Your task to perform on an android device: Check the weather Image 0: 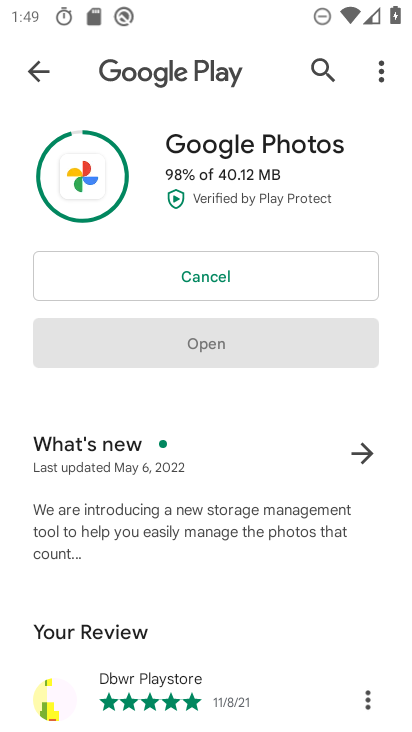
Step 0: drag from (213, 619) to (260, 239)
Your task to perform on an android device: Check the weather Image 1: 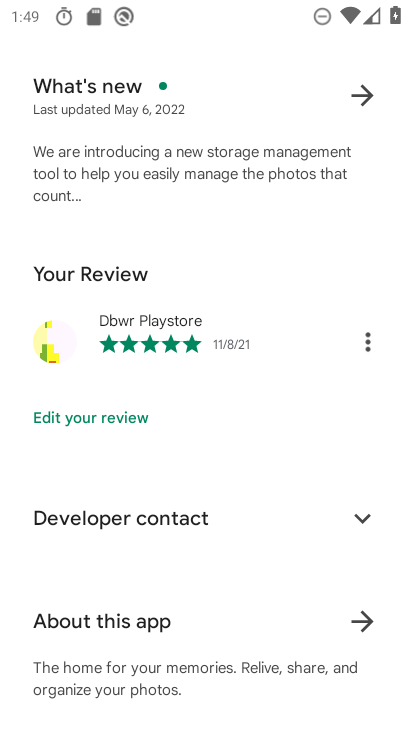
Step 1: drag from (201, 564) to (256, 316)
Your task to perform on an android device: Check the weather Image 2: 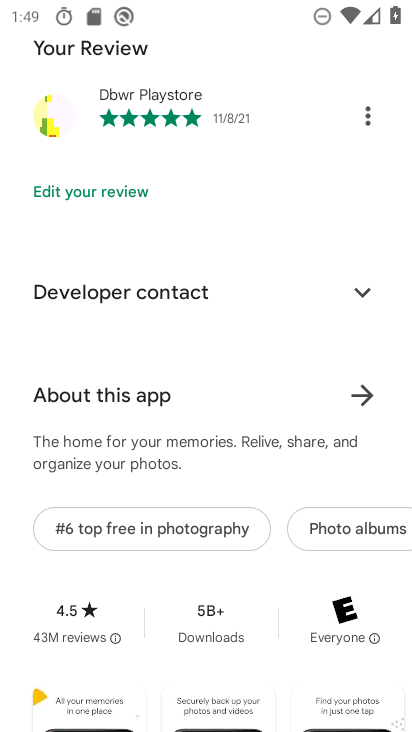
Step 2: drag from (215, 501) to (284, 90)
Your task to perform on an android device: Check the weather Image 3: 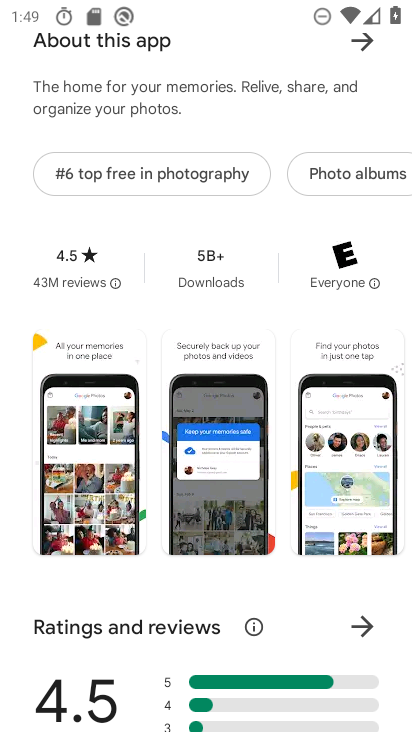
Step 3: drag from (210, 572) to (254, 243)
Your task to perform on an android device: Check the weather Image 4: 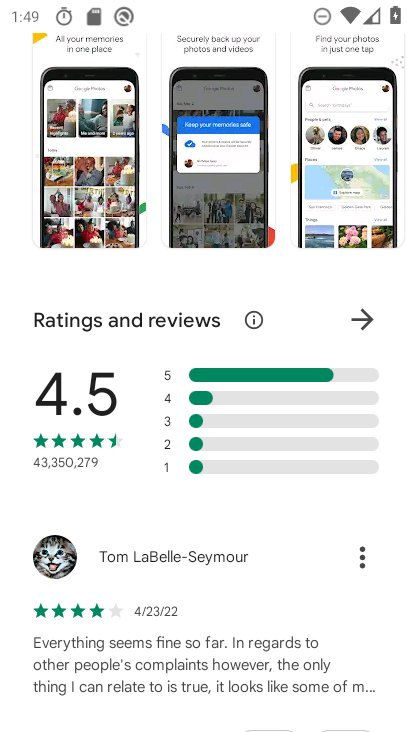
Step 4: drag from (254, 161) to (372, 600)
Your task to perform on an android device: Check the weather Image 5: 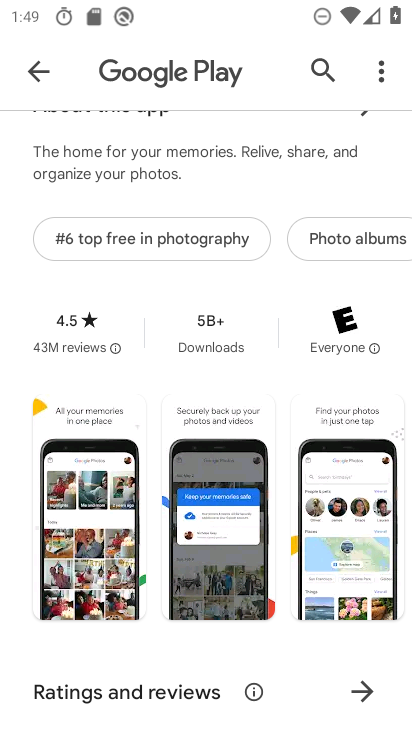
Step 5: press home button
Your task to perform on an android device: Check the weather Image 6: 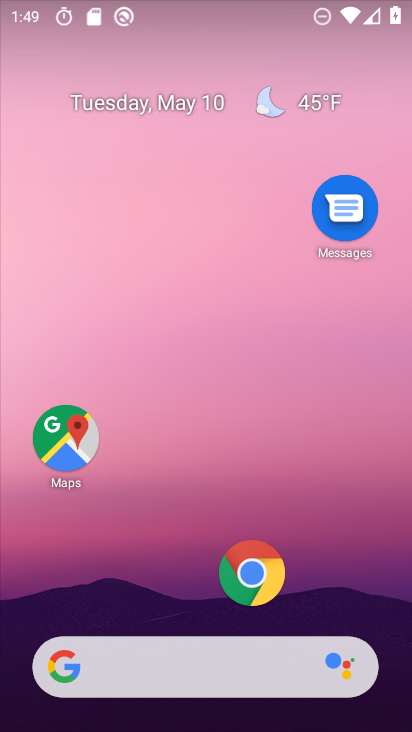
Step 6: click (245, 577)
Your task to perform on an android device: Check the weather Image 7: 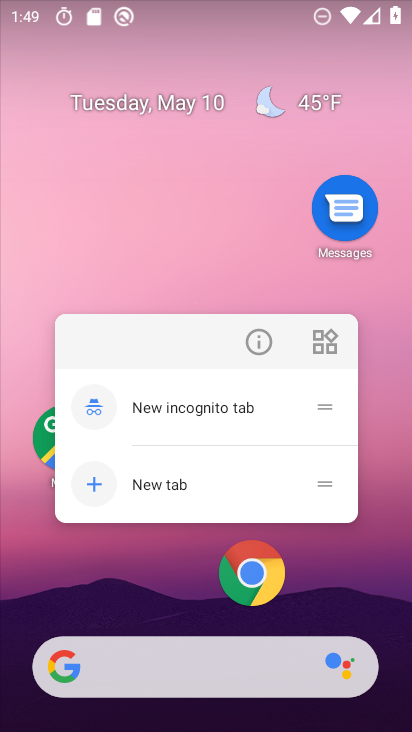
Step 7: click (267, 328)
Your task to perform on an android device: Check the weather Image 8: 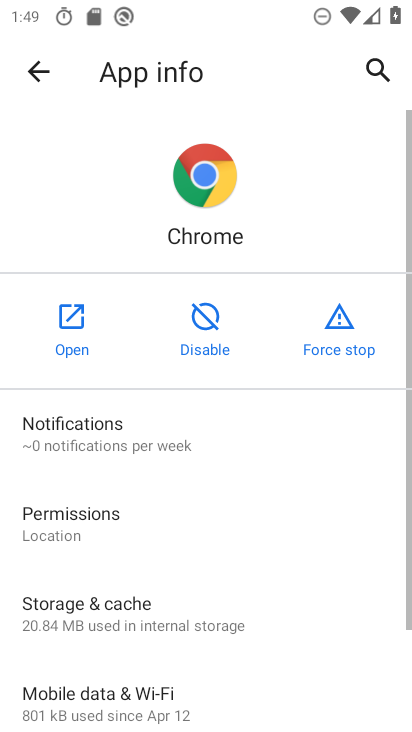
Step 8: click (77, 297)
Your task to perform on an android device: Check the weather Image 9: 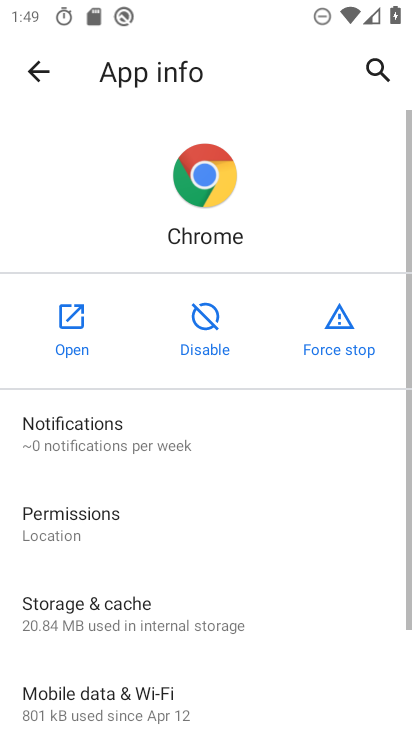
Step 9: click (81, 303)
Your task to perform on an android device: Check the weather Image 10: 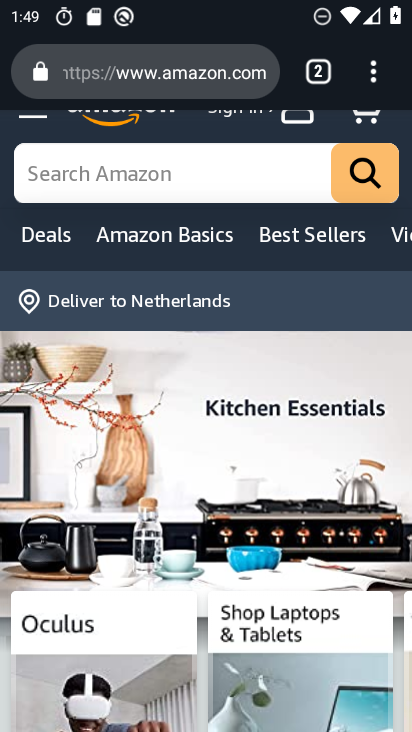
Step 10: click (201, 78)
Your task to perform on an android device: Check the weather Image 11: 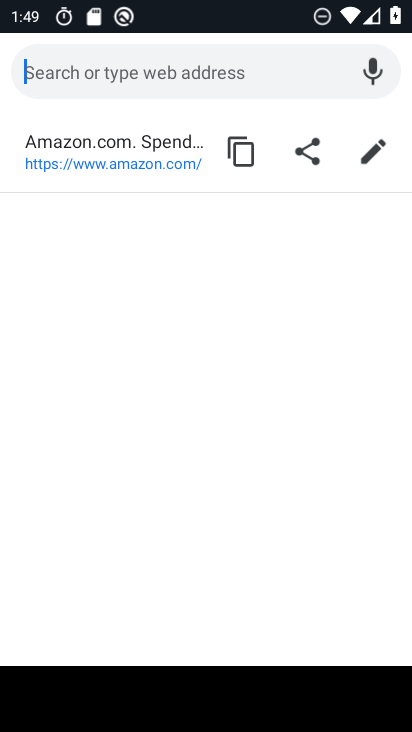
Step 11: click (209, 75)
Your task to perform on an android device: Check the weather Image 12: 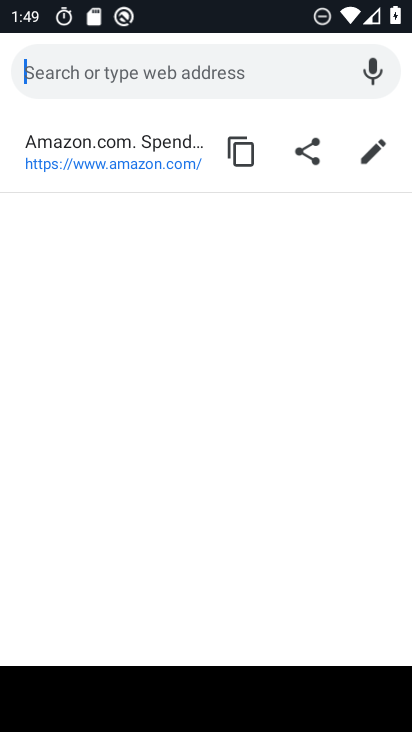
Step 12: type "weather"
Your task to perform on an android device: Check the weather Image 13: 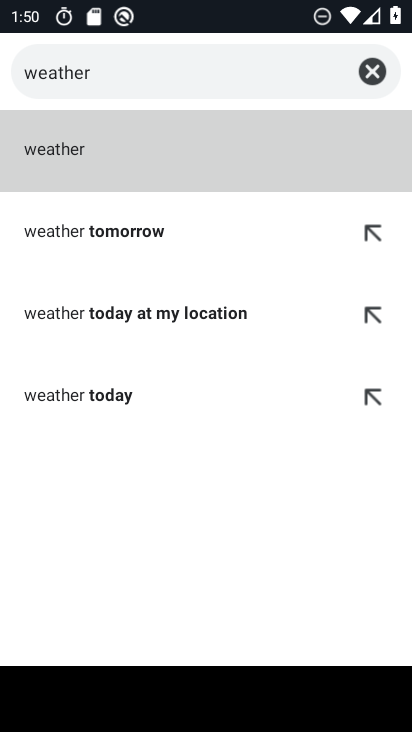
Step 13: click (76, 150)
Your task to perform on an android device: Check the weather Image 14: 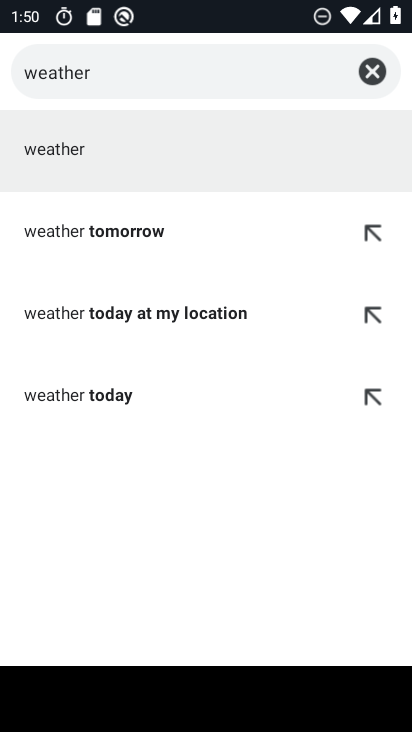
Step 14: click (76, 150)
Your task to perform on an android device: Check the weather Image 15: 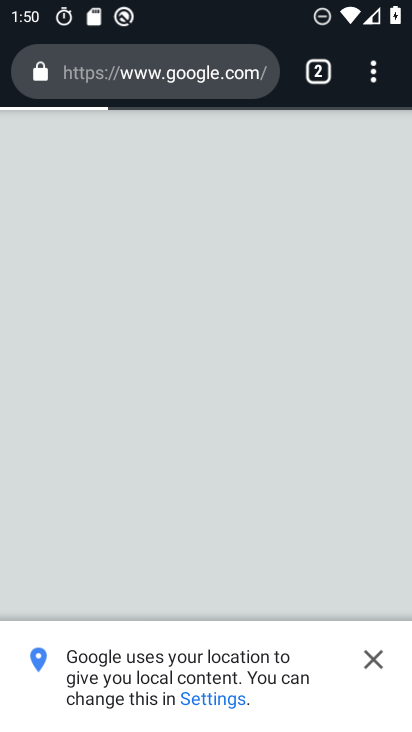
Step 15: task complete